Your task to perform on an android device: Set the phone to "Do not disturb". Image 0: 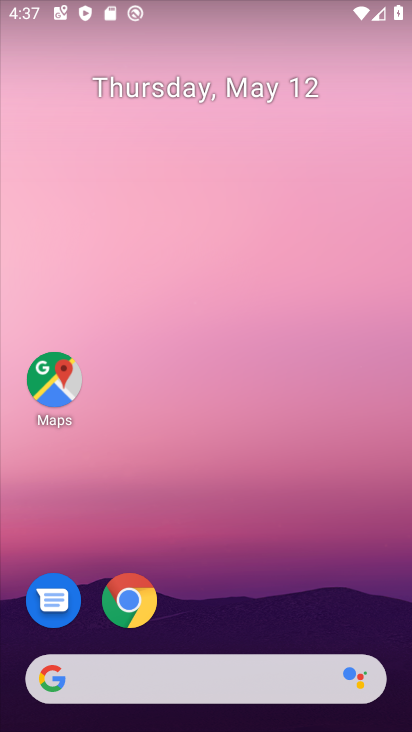
Step 0: click (254, 71)
Your task to perform on an android device: Set the phone to "Do not disturb". Image 1: 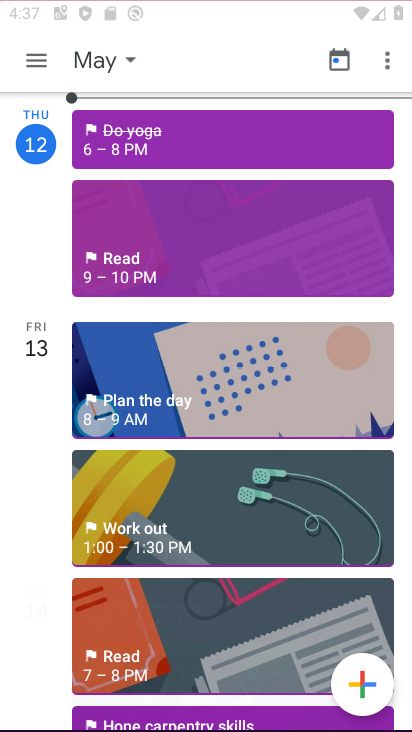
Step 1: drag from (226, 596) to (284, 246)
Your task to perform on an android device: Set the phone to "Do not disturb". Image 2: 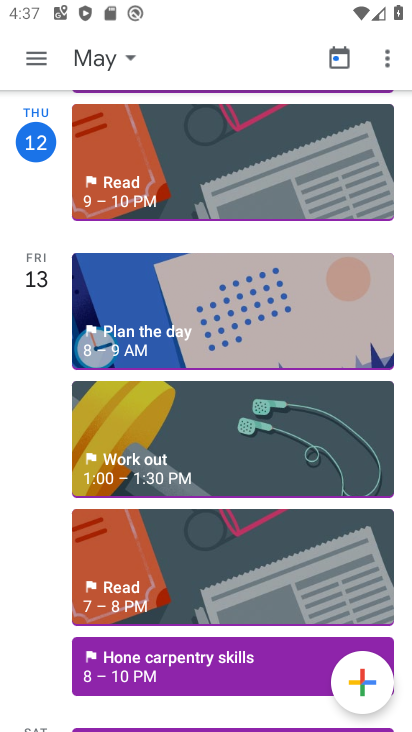
Step 2: press home button
Your task to perform on an android device: Set the phone to "Do not disturb". Image 3: 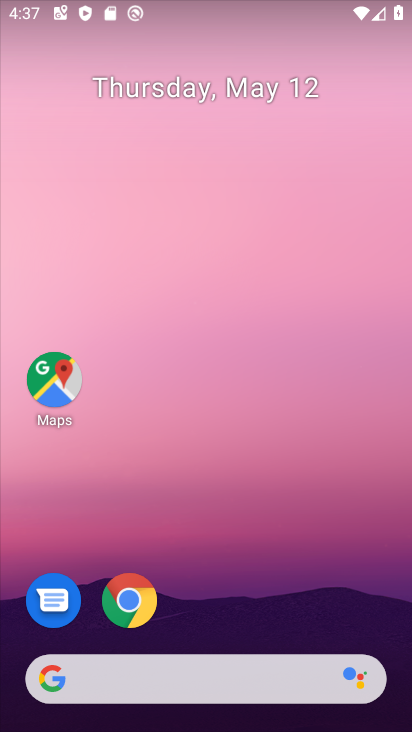
Step 3: drag from (209, 620) to (347, 46)
Your task to perform on an android device: Set the phone to "Do not disturb". Image 4: 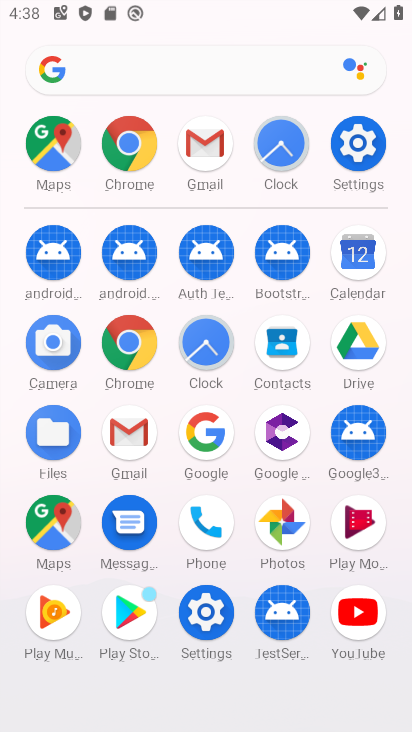
Step 4: click (203, 621)
Your task to perform on an android device: Set the phone to "Do not disturb". Image 5: 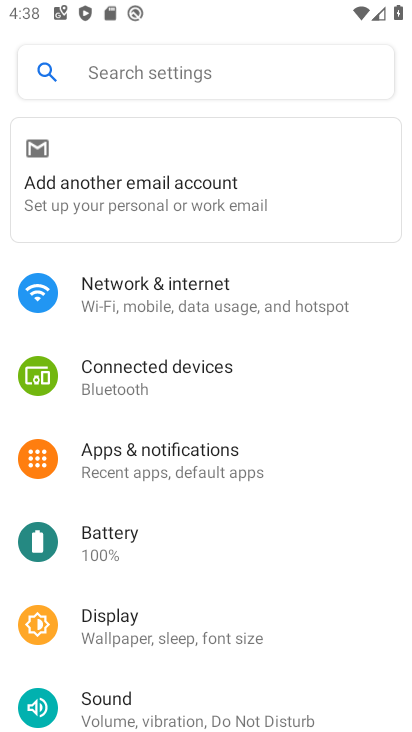
Step 5: click (166, 290)
Your task to perform on an android device: Set the phone to "Do not disturb". Image 6: 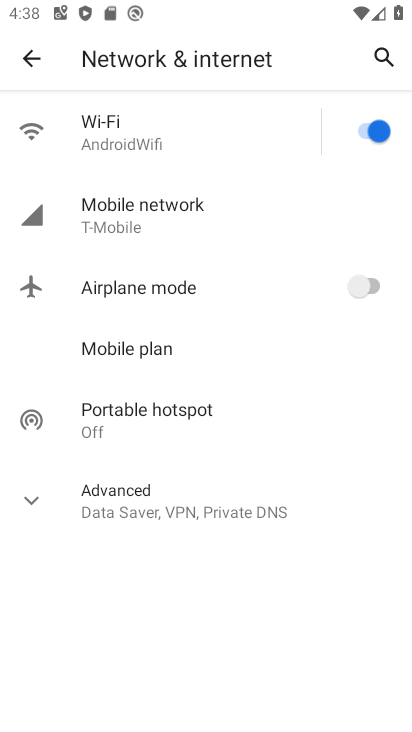
Step 6: click (21, 56)
Your task to perform on an android device: Set the phone to "Do not disturb". Image 7: 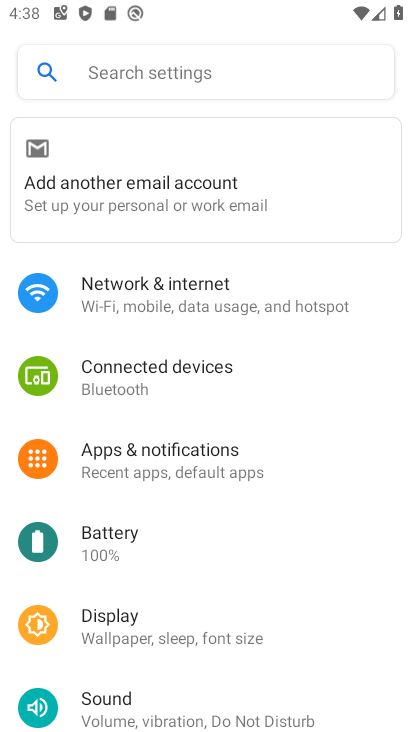
Step 7: click (194, 468)
Your task to perform on an android device: Set the phone to "Do not disturb". Image 8: 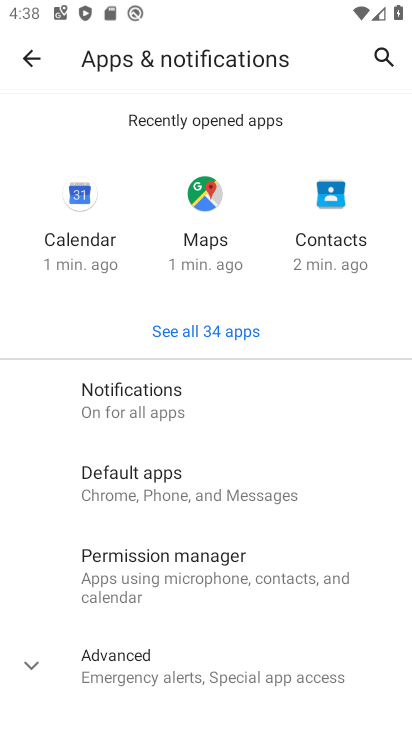
Step 8: click (162, 397)
Your task to perform on an android device: Set the phone to "Do not disturb". Image 9: 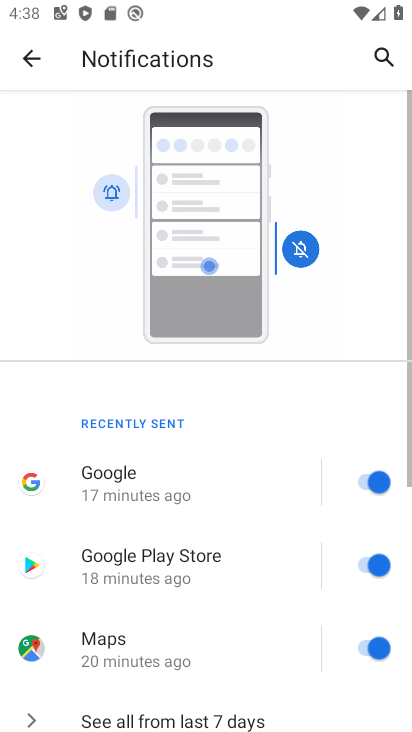
Step 9: drag from (200, 536) to (313, 146)
Your task to perform on an android device: Set the phone to "Do not disturb". Image 10: 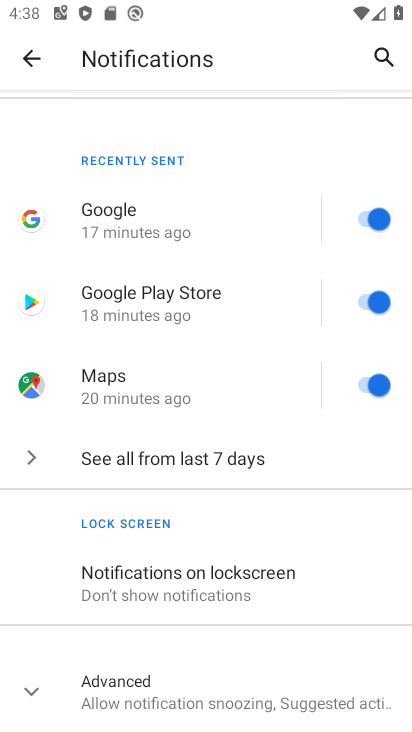
Step 10: drag from (257, 580) to (294, 267)
Your task to perform on an android device: Set the phone to "Do not disturb". Image 11: 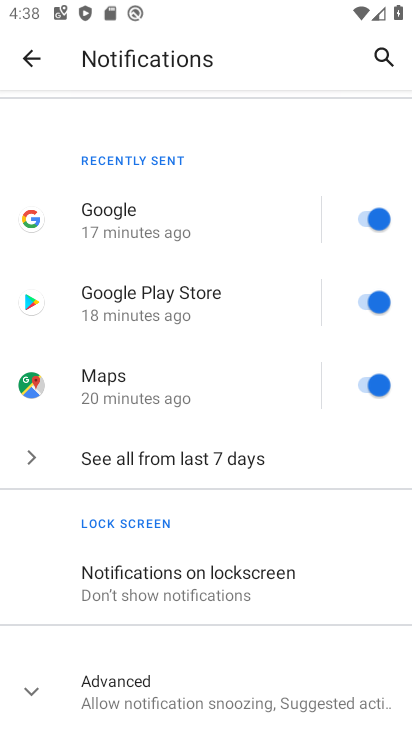
Step 11: click (123, 670)
Your task to perform on an android device: Set the phone to "Do not disturb". Image 12: 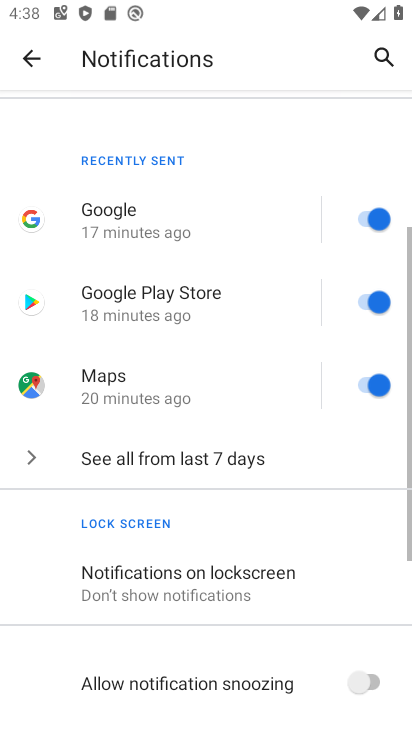
Step 12: drag from (127, 668) to (274, 31)
Your task to perform on an android device: Set the phone to "Do not disturb". Image 13: 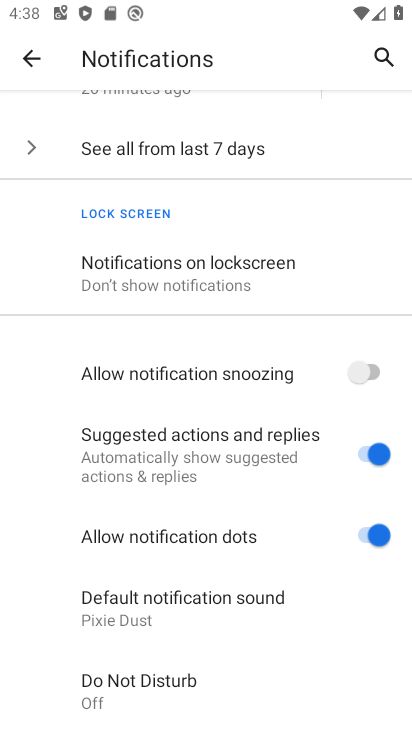
Step 13: click (154, 692)
Your task to perform on an android device: Set the phone to "Do not disturb". Image 14: 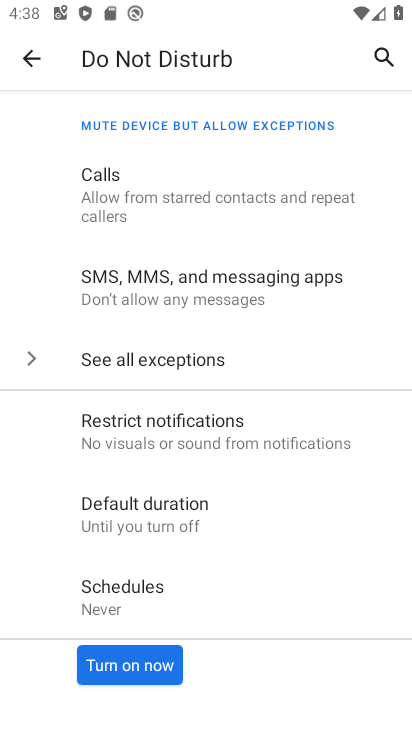
Step 14: click (136, 702)
Your task to perform on an android device: Set the phone to "Do not disturb". Image 15: 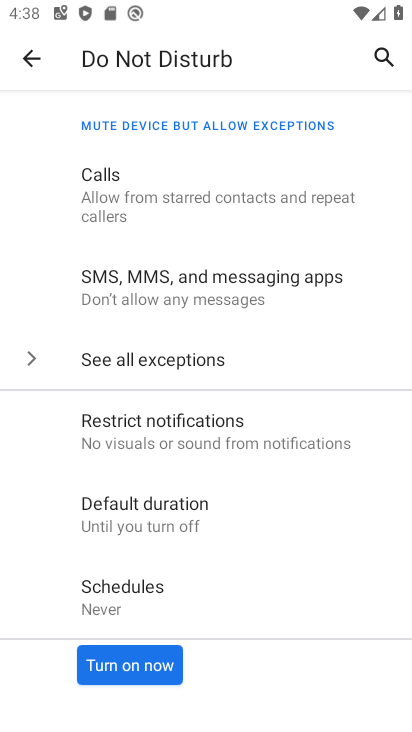
Step 15: click (130, 663)
Your task to perform on an android device: Set the phone to "Do not disturb". Image 16: 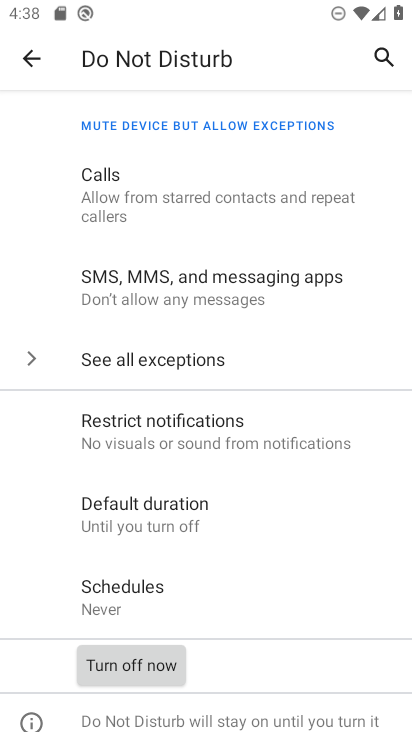
Step 16: click (120, 657)
Your task to perform on an android device: Set the phone to "Do not disturb". Image 17: 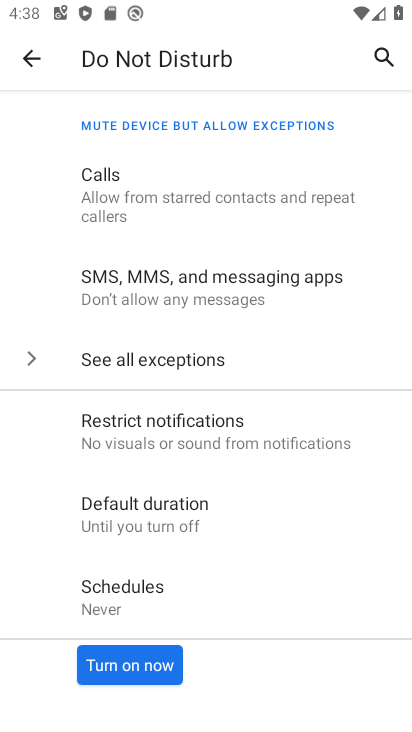
Step 17: task complete